Your task to perform on an android device: Open accessibility settings Image 0: 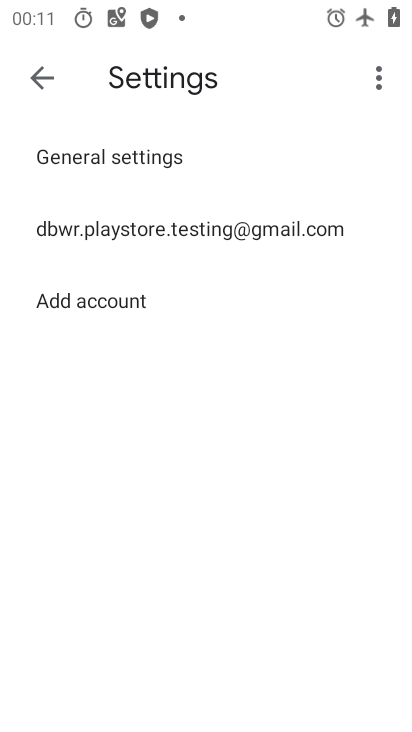
Step 0: press home button
Your task to perform on an android device: Open accessibility settings Image 1: 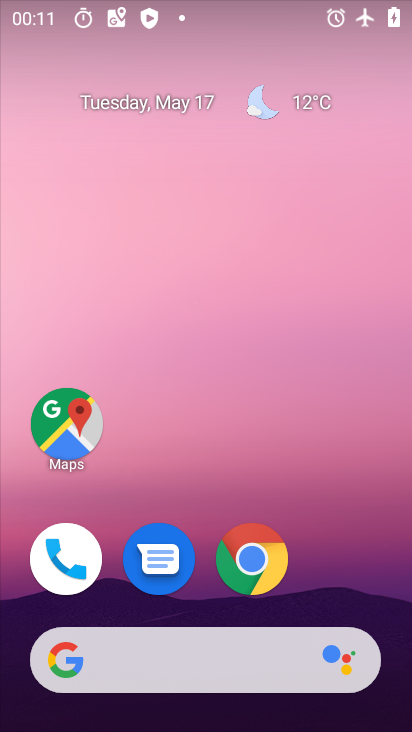
Step 1: drag from (292, 525) to (270, 69)
Your task to perform on an android device: Open accessibility settings Image 2: 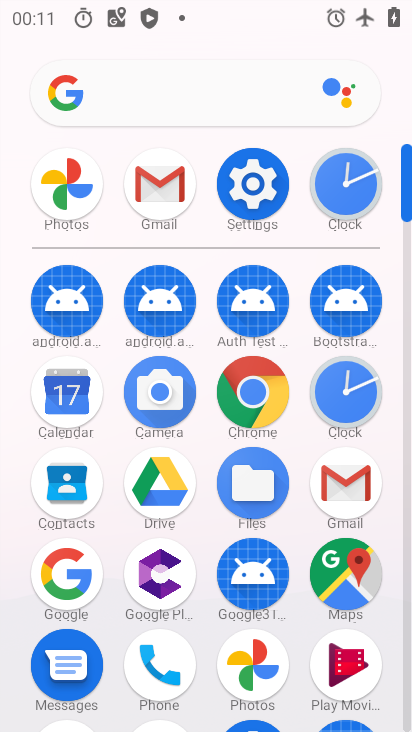
Step 2: click (240, 185)
Your task to perform on an android device: Open accessibility settings Image 3: 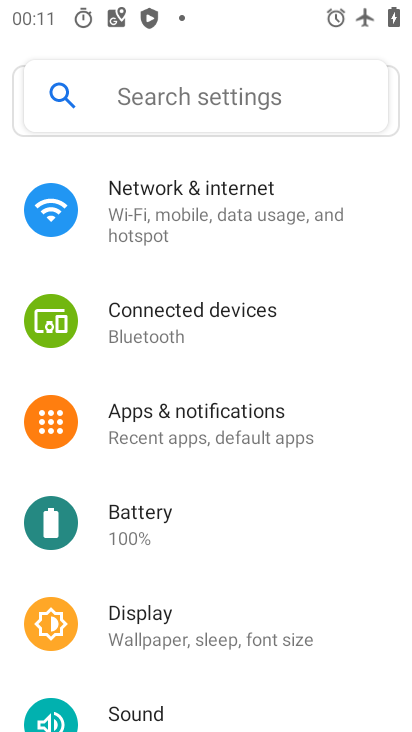
Step 3: drag from (300, 624) to (278, 125)
Your task to perform on an android device: Open accessibility settings Image 4: 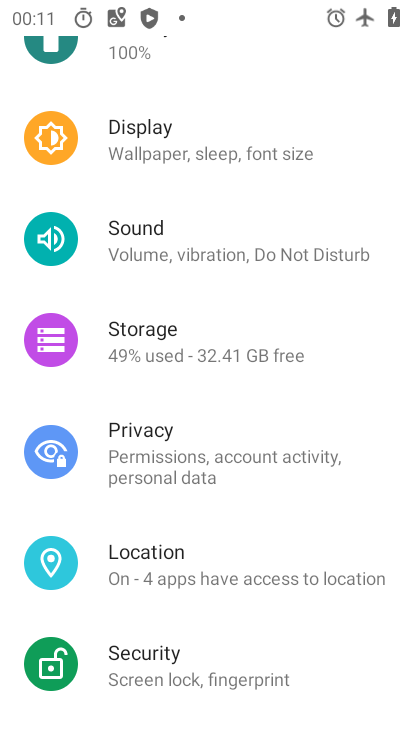
Step 4: drag from (220, 552) to (230, 170)
Your task to perform on an android device: Open accessibility settings Image 5: 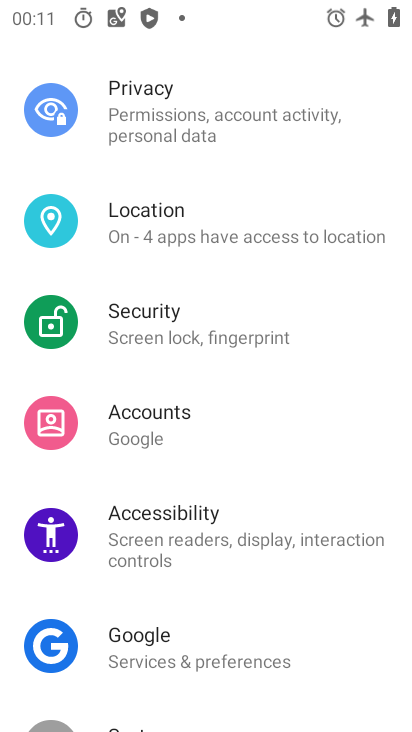
Step 5: click (186, 538)
Your task to perform on an android device: Open accessibility settings Image 6: 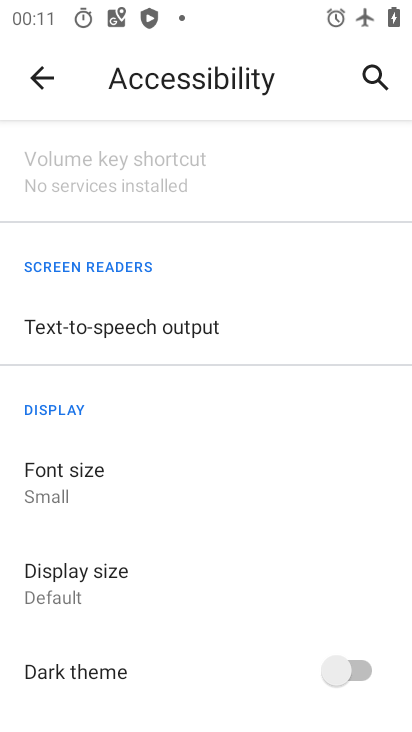
Step 6: task complete